Your task to perform on an android device: remove spam from my inbox in the gmail app Image 0: 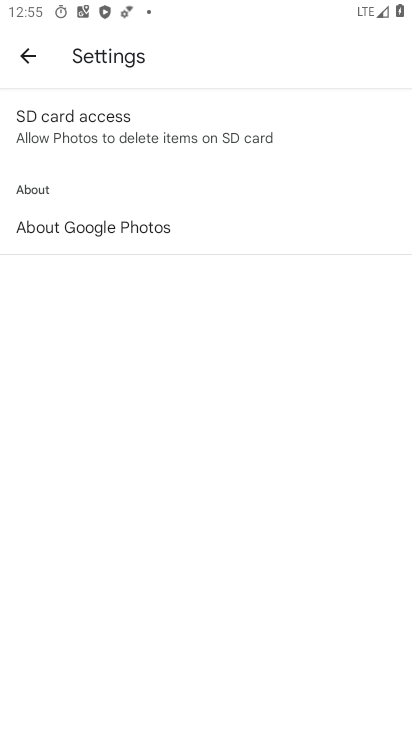
Step 0: press home button
Your task to perform on an android device: remove spam from my inbox in the gmail app Image 1: 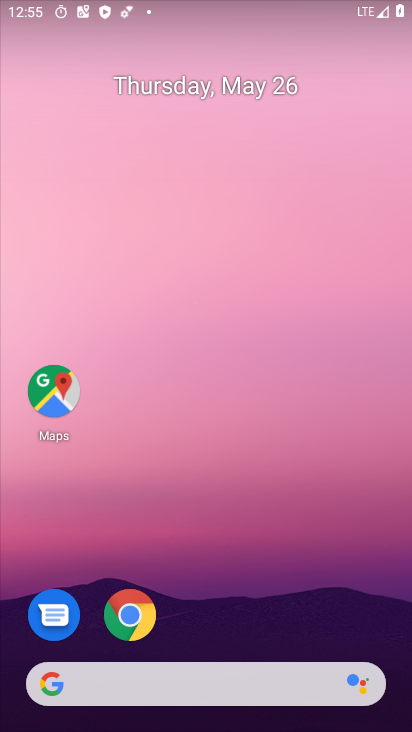
Step 1: drag from (237, 618) to (192, 140)
Your task to perform on an android device: remove spam from my inbox in the gmail app Image 2: 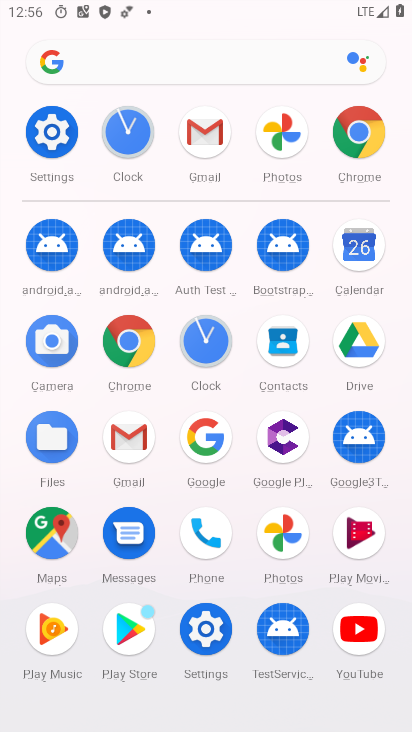
Step 2: click (220, 145)
Your task to perform on an android device: remove spam from my inbox in the gmail app Image 3: 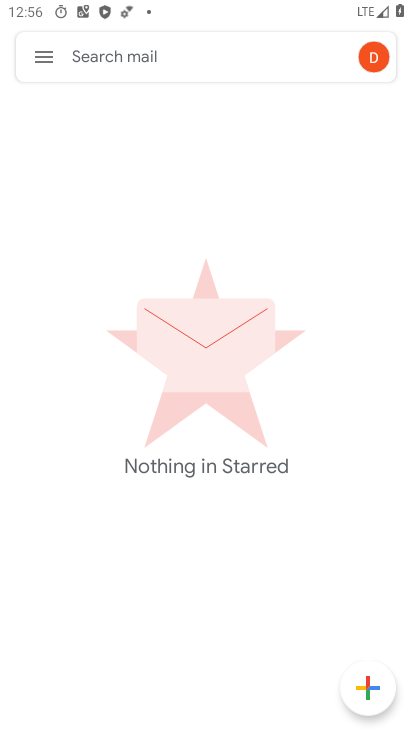
Step 3: click (42, 51)
Your task to perform on an android device: remove spam from my inbox in the gmail app Image 4: 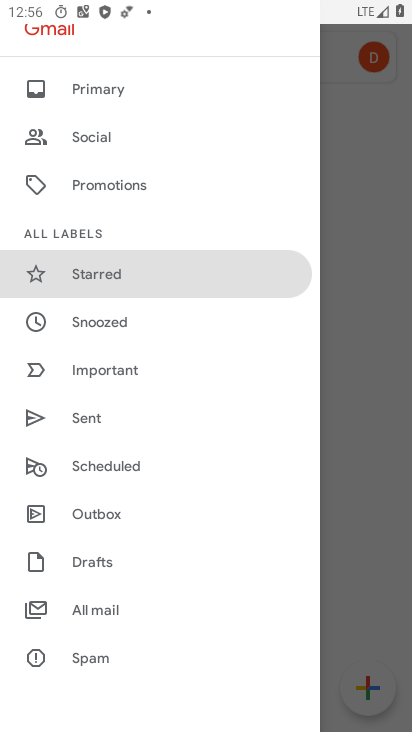
Step 4: click (120, 654)
Your task to perform on an android device: remove spam from my inbox in the gmail app Image 5: 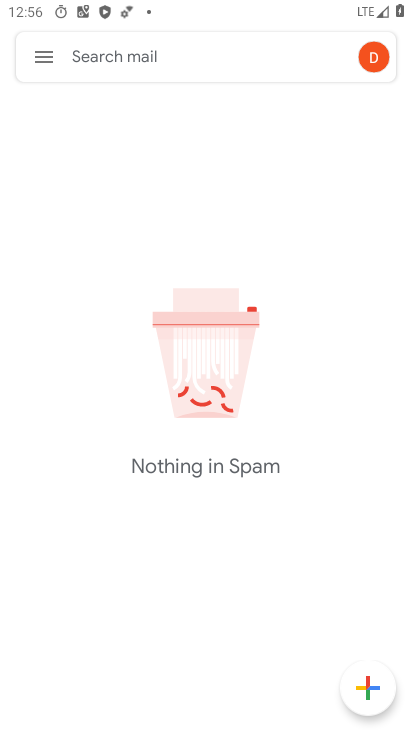
Step 5: task complete